Your task to perform on an android device: read, delete, or share a saved page in the chrome app Image 0: 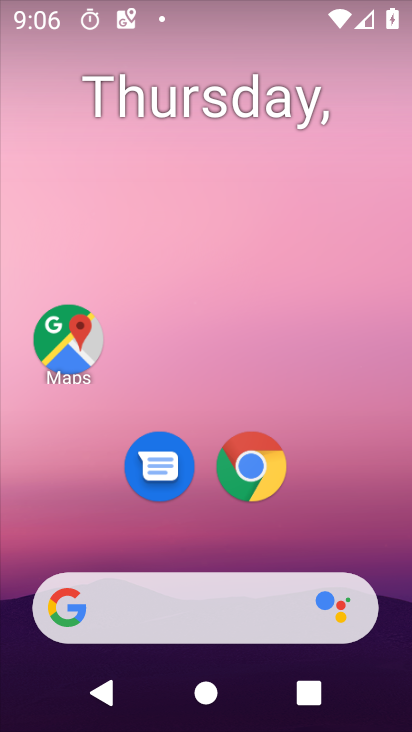
Step 0: press home button
Your task to perform on an android device: read, delete, or share a saved page in the chrome app Image 1: 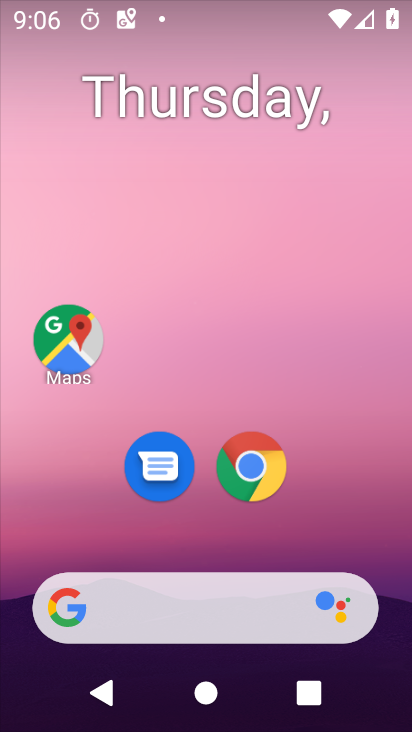
Step 1: click (253, 476)
Your task to perform on an android device: read, delete, or share a saved page in the chrome app Image 2: 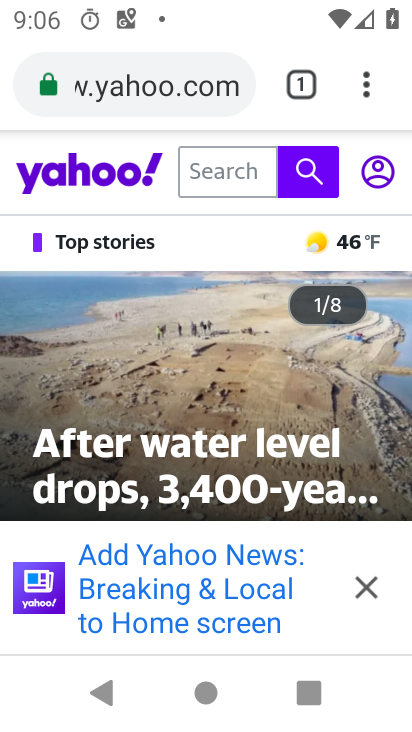
Step 2: drag from (366, 71) to (169, 270)
Your task to perform on an android device: read, delete, or share a saved page in the chrome app Image 3: 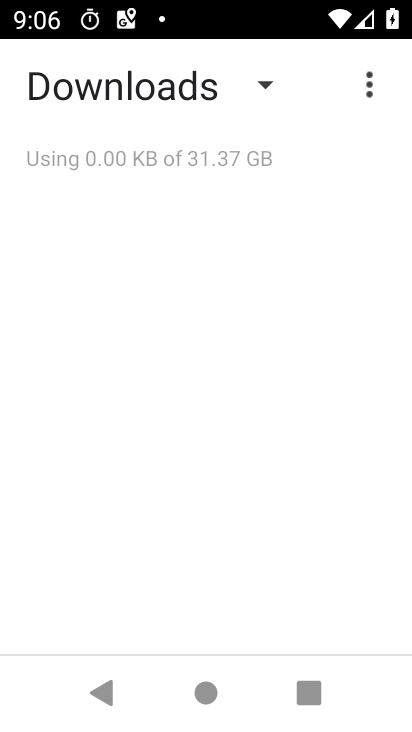
Step 3: click (266, 81)
Your task to perform on an android device: read, delete, or share a saved page in the chrome app Image 4: 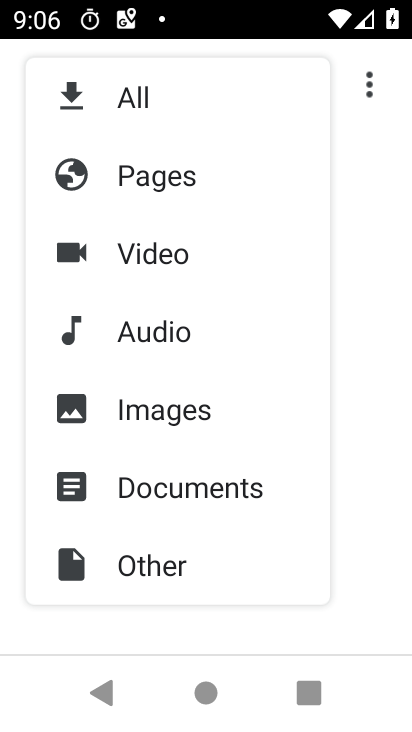
Step 4: click (157, 179)
Your task to perform on an android device: read, delete, or share a saved page in the chrome app Image 5: 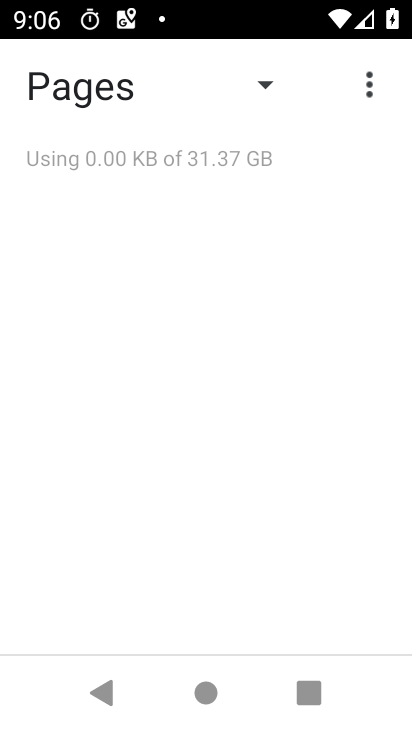
Step 5: task complete